Your task to perform on an android device: Go to location settings Image 0: 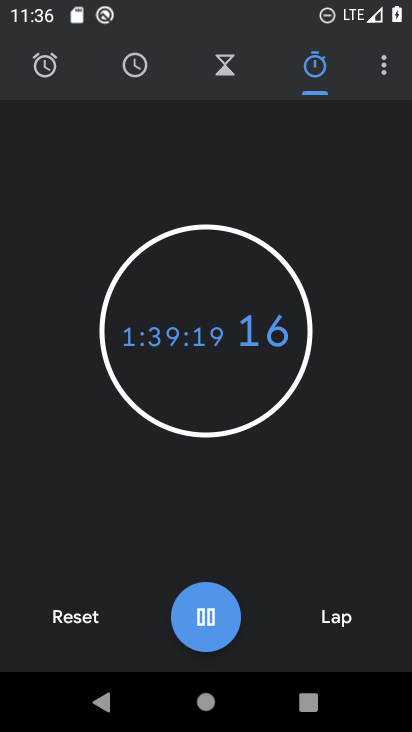
Step 0: press home button
Your task to perform on an android device: Go to location settings Image 1: 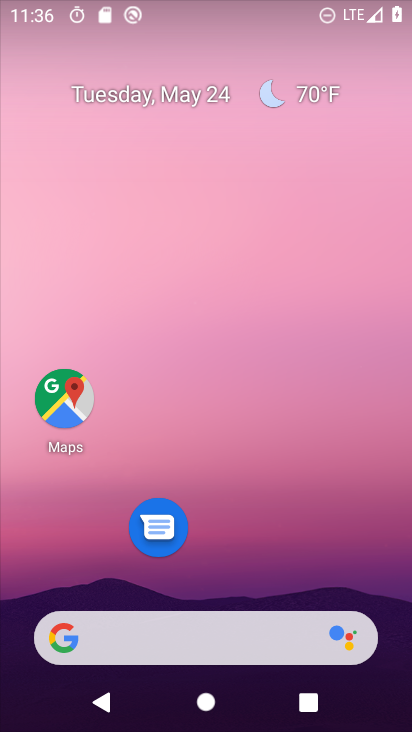
Step 1: drag from (254, 570) to (262, 134)
Your task to perform on an android device: Go to location settings Image 2: 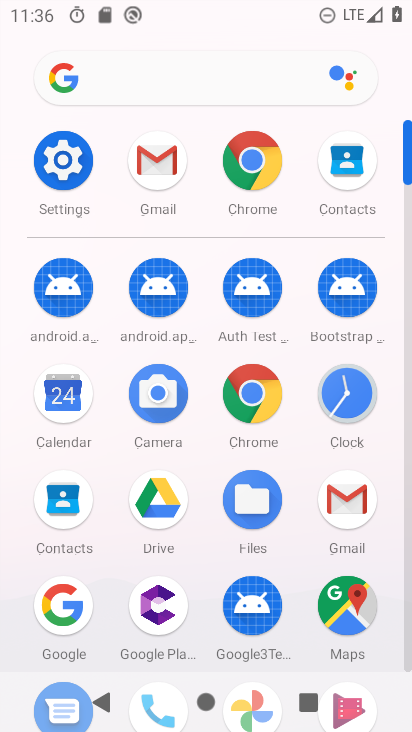
Step 2: click (65, 160)
Your task to perform on an android device: Go to location settings Image 3: 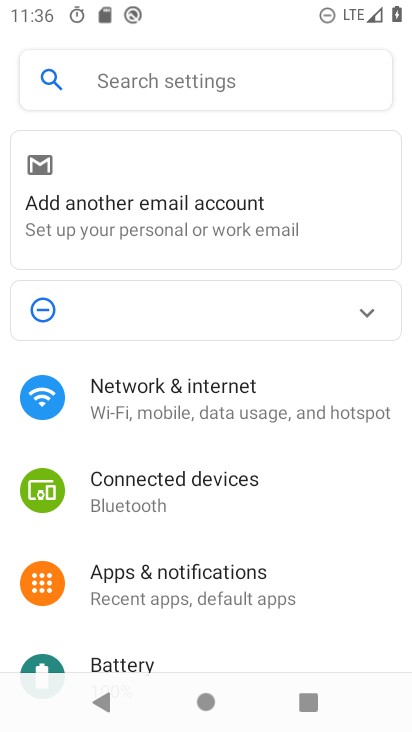
Step 3: drag from (251, 553) to (253, 211)
Your task to perform on an android device: Go to location settings Image 4: 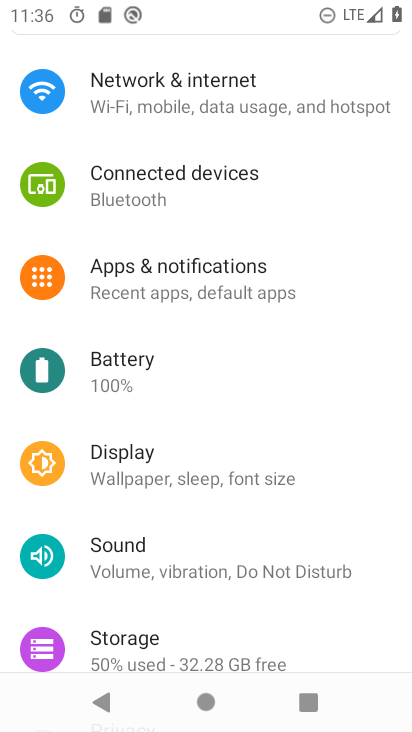
Step 4: drag from (191, 544) to (226, 209)
Your task to perform on an android device: Go to location settings Image 5: 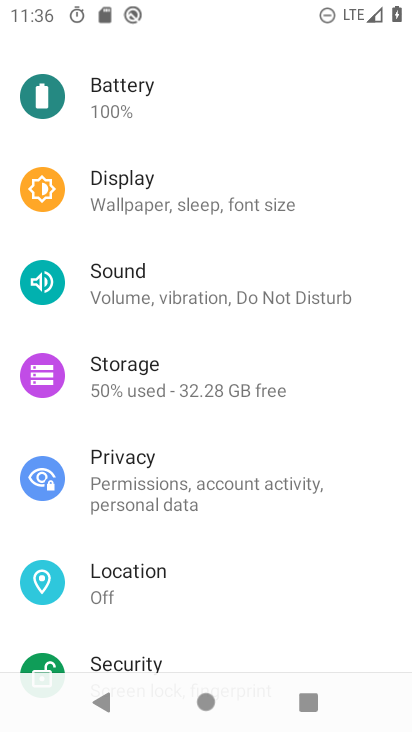
Step 5: click (102, 605)
Your task to perform on an android device: Go to location settings Image 6: 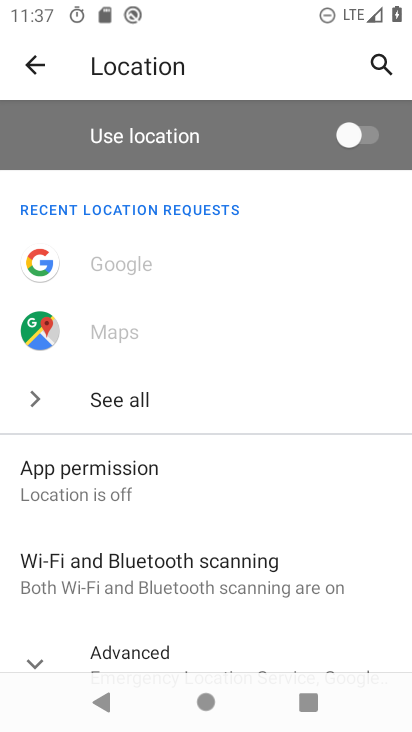
Step 6: task complete